Your task to perform on an android device: Do I have any events tomorrow? Image 0: 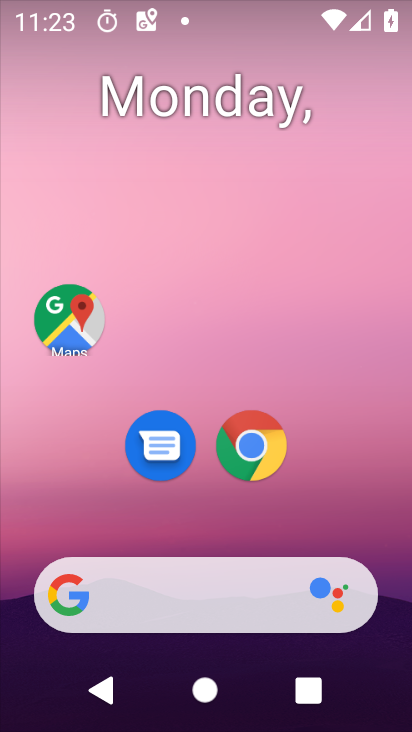
Step 0: drag from (226, 475) to (234, 110)
Your task to perform on an android device: Do I have any events tomorrow? Image 1: 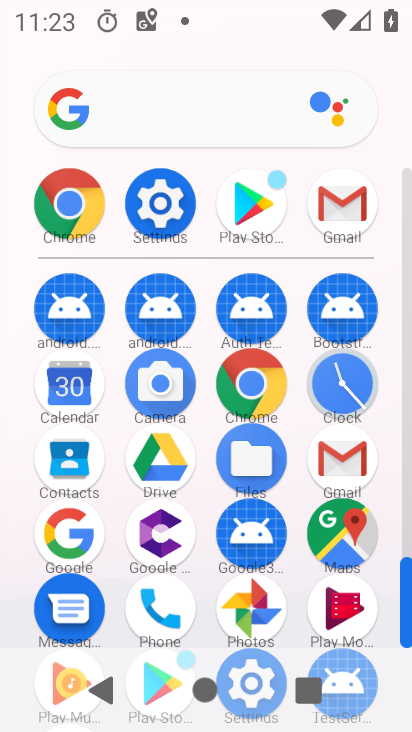
Step 1: click (58, 383)
Your task to perform on an android device: Do I have any events tomorrow? Image 2: 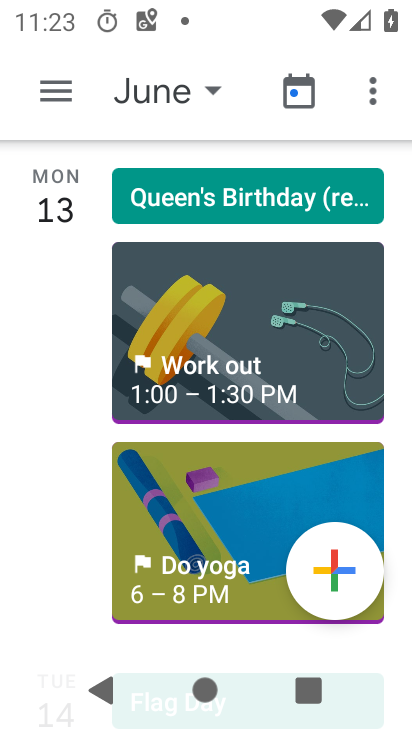
Step 2: click (161, 88)
Your task to perform on an android device: Do I have any events tomorrow? Image 3: 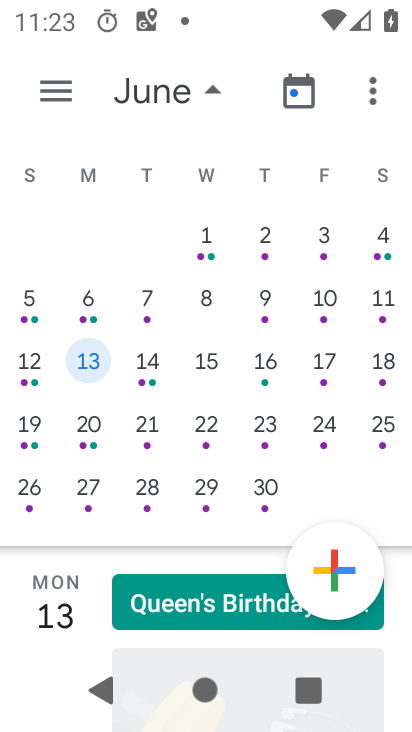
Step 3: drag from (8, 402) to (405, 360)
Your task to perform on an android device: Do I have any events tomorrow? Image 4: 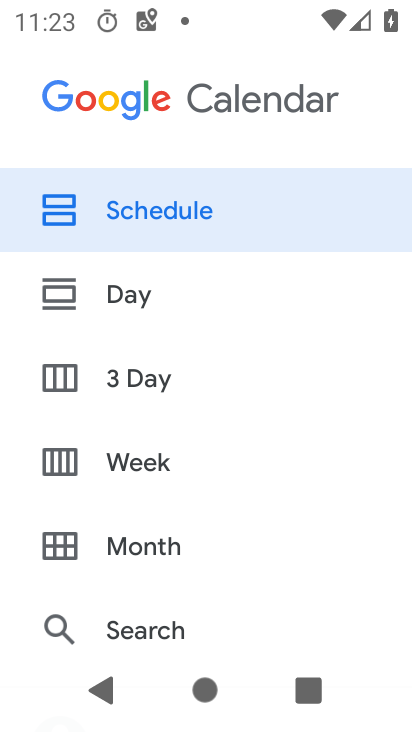
Step 4: drag from (400, 360) to (3, 339)
Your task to perform on an android device: Do I have any events tomorrow? Image 5: 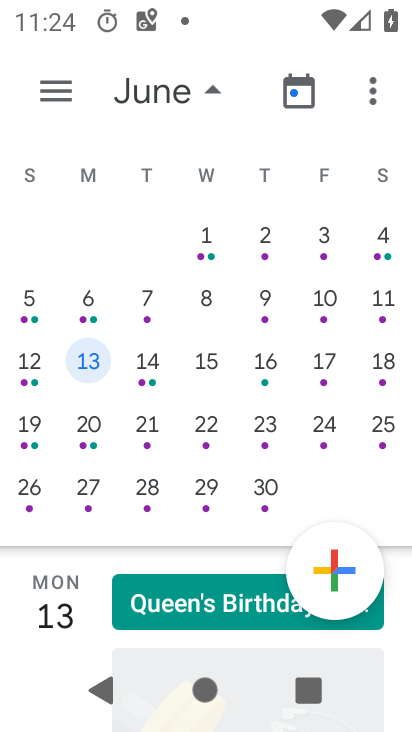
Step 5: drag from (45, 373) to (374, 348)
Your task to perform on an android device: Do I have any events tomorrow? Image 6: 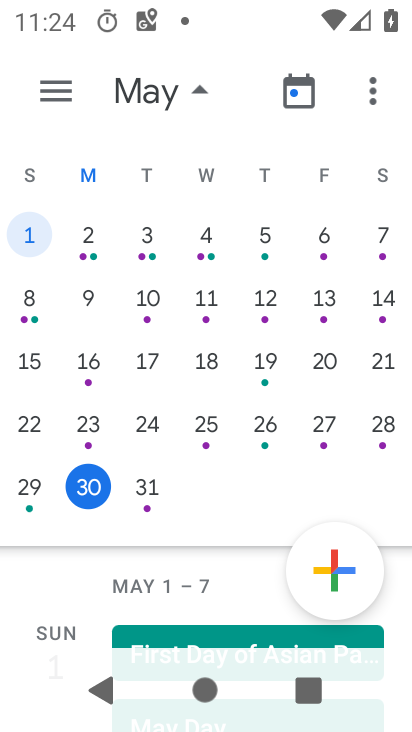
Step 6: click (144, 487)
Your task to perform on an android device: Do I have any events tomorrow? Image 7: 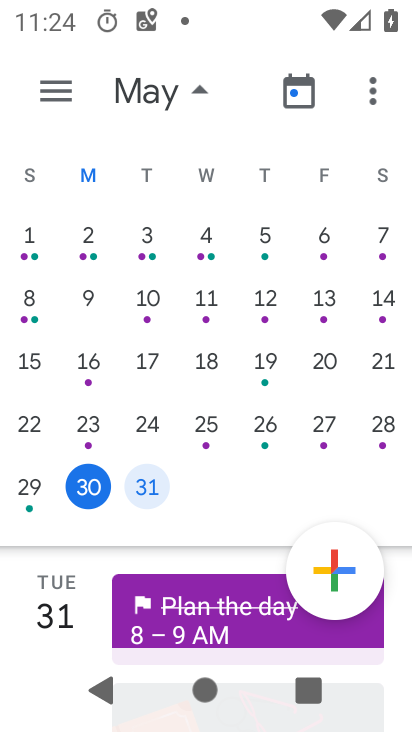
Step 7: drag from (149, 575) to (267, 78)
Your task to perform on an android device: Do I have any events tomorrow? Image 8: 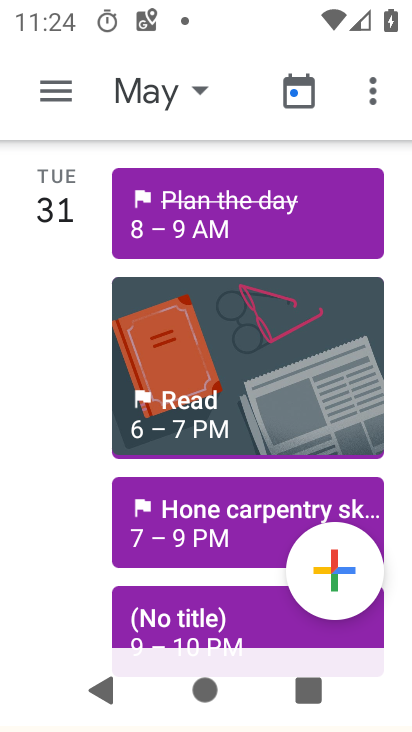
Step 8: drag from (174, 555) to (244, 104)
Your task to perform on an android device: Do I have any events tomorrow? Image 9: 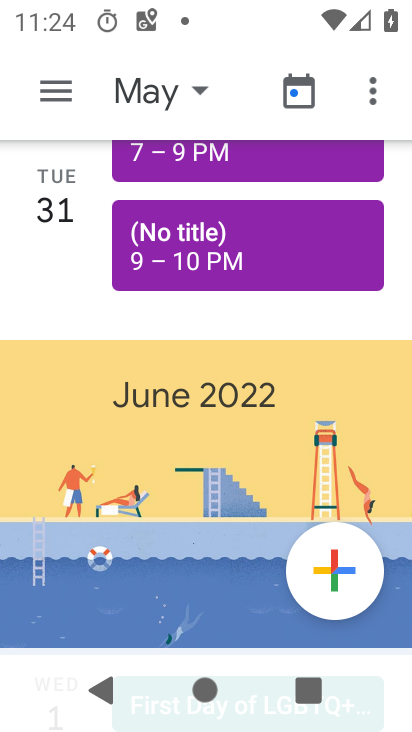
Step 9: drag from (195, 565) to (263, 90)
Your task to perform on an android device: Do I have any events tomorrow? Image 10: 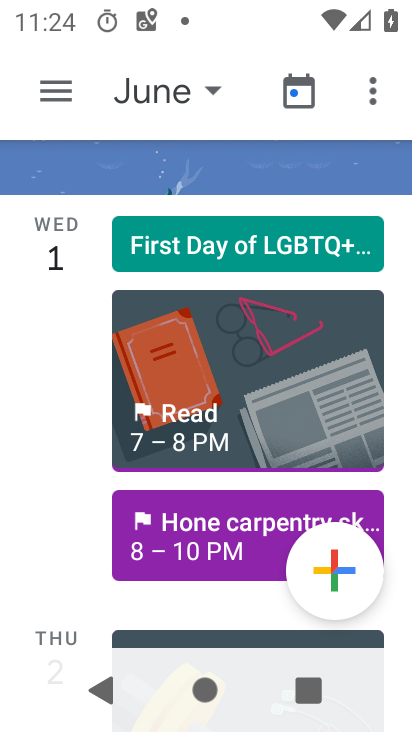
Step 10: click (206, 240)
Your task to perform on an android device: Do I have any events tomorrow? Image 11: 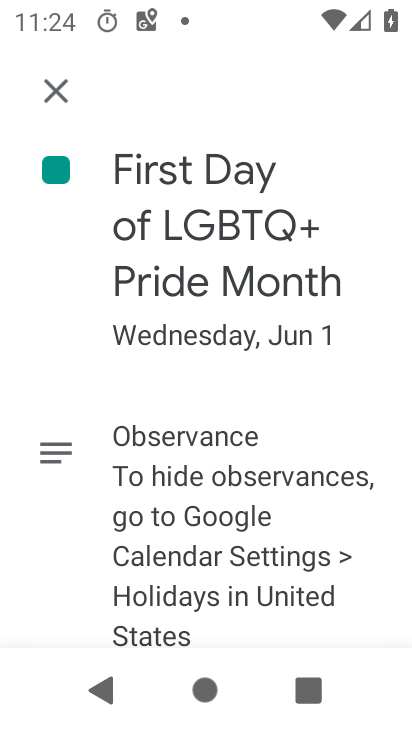
Step 11: task complete